Your task to perform on an android device: View the shopping cart on bestbuy.com. Add "apple airpods pro" to the cart on bestbuy.com, then select checkout. Image 0: 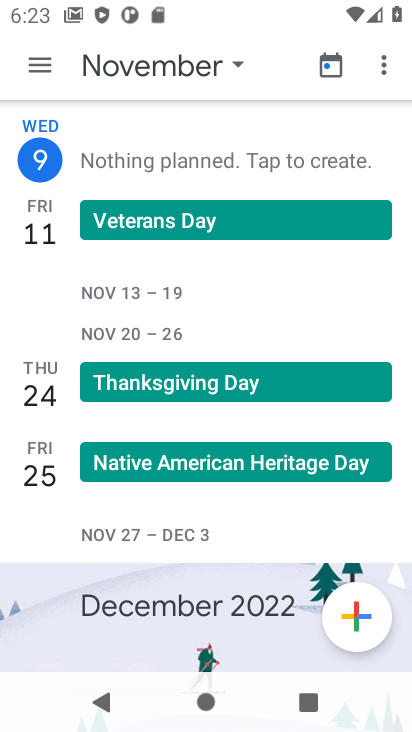
Step 0: press home button
Your task to perform on an android device: View the shopping cart on bestbuy.com. Add "apple airpods pro" to the cart on bestbuy.com, then select checkout. Image 1: 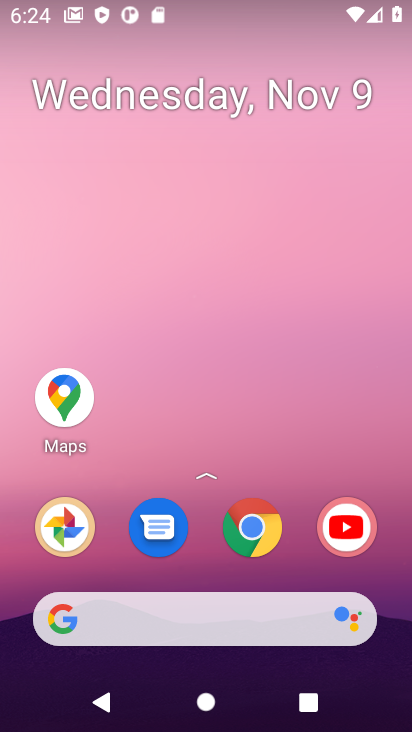
Step 1: click (267, 535)
Your task to perform on an android device: View the shopping cart on bestbuy.com. Add "apple airpods pro" to the cart on bestbuy.com, then select checkout. Image 2: 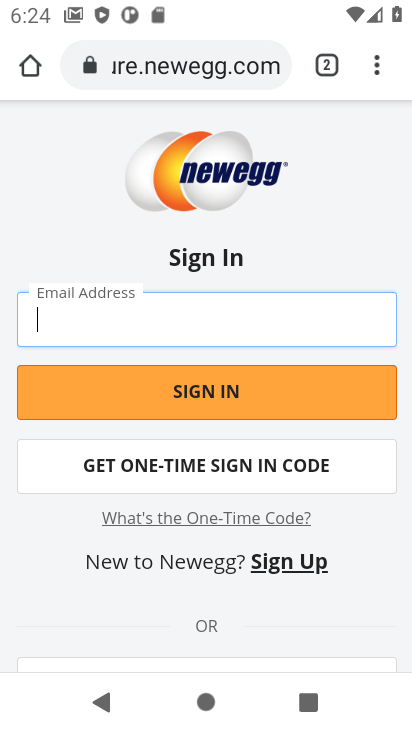
Step 2: click (240, 60)
Your task to perform on an android device: View the shopping cart on bestbuy.com. Add "apple airpods pro" to the cart on bestbuy.com, then select checkout. Image 3: 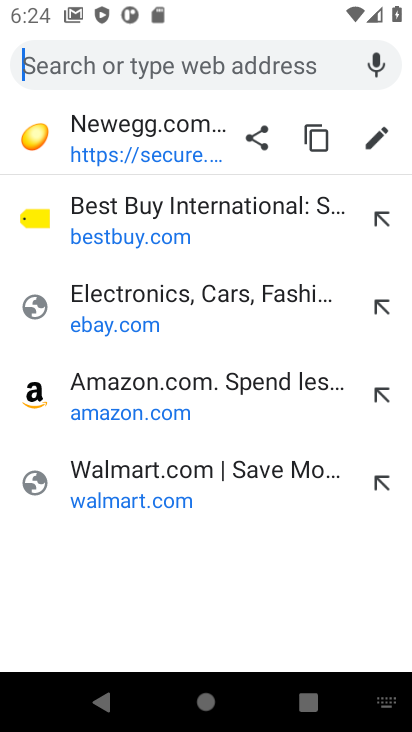
Step 3: click (154, 198)
Your task to perform on an android device: View the shopping cart on bestbuy.com. Add "apple airpods pro" to the cart on bestbuy.com, then select checkout. Image 4: 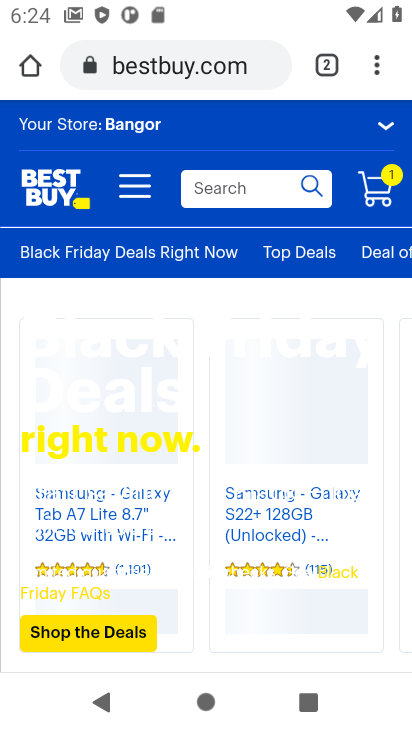
Step 4: click (371, 195)
Your task to perform on an android device: View the shopping cart on bestbuy.com. Add "apple airpods pro" to the cart on bestbuy.com, then select checkout. Image 5: 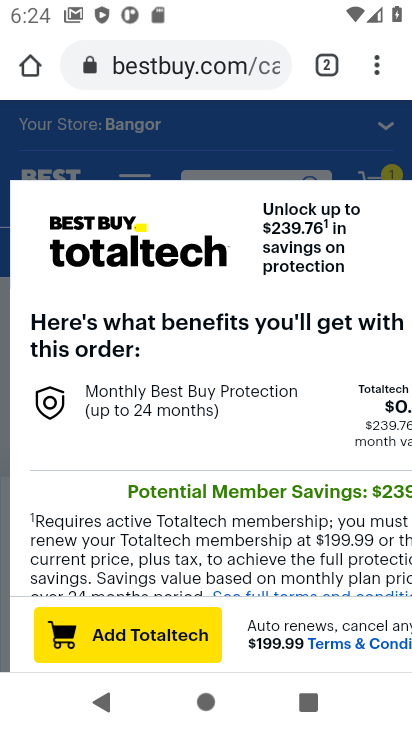
Step 5: drag from (225, 524) to (240, 166)
Your task to perform on an android device: View the shopping cart on bestbuy.com. Add "apple airpods pro" to the cart on bestbuy.com, then select checkout. Image 6: 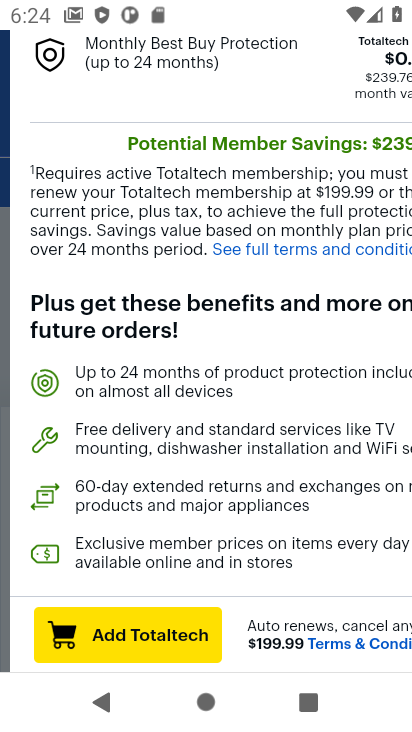
Step 6: drag from (238, 442) to (233, 149)
Your task to perform on an android device: View the shopping cart on bestbuy.com. Add "apple airpods pro" to the cart on bestbuy.com, then select checkout. Image 7: 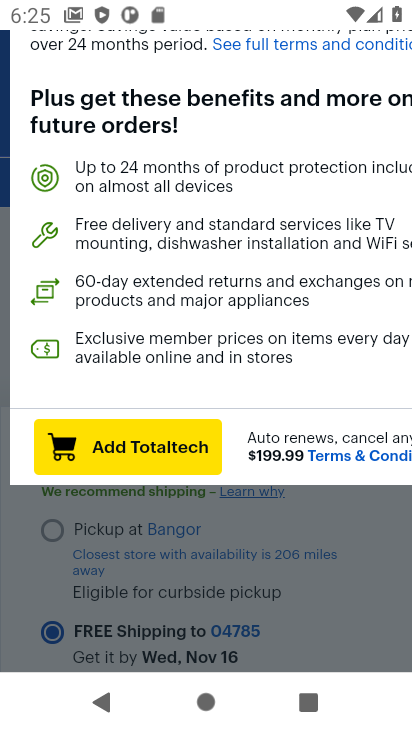
Step 7: click (385, 547)
Your task to perform on an android device: View the shopping cart on bestbuy.com. Add "apple airpods pro" to the cart on bestbuy.com, then select checkout. Image 8: 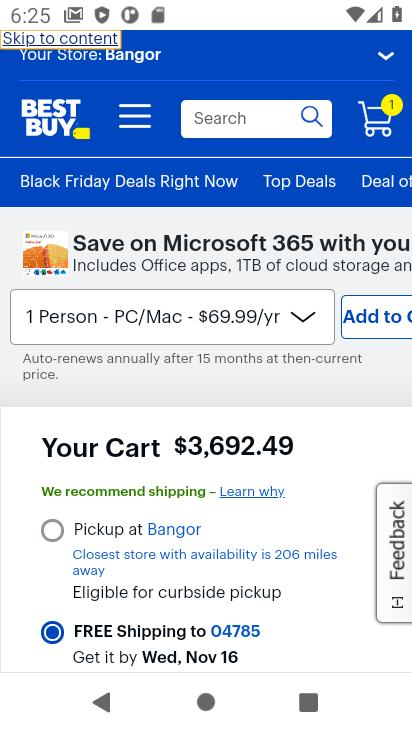
Step 8: click (218, 122)
Your task to perform on an android device: View the shopping cart on bestbuy.com. Add "apple airpods pro" to the cart on bestbuy.com, then select checkout. Image 9: 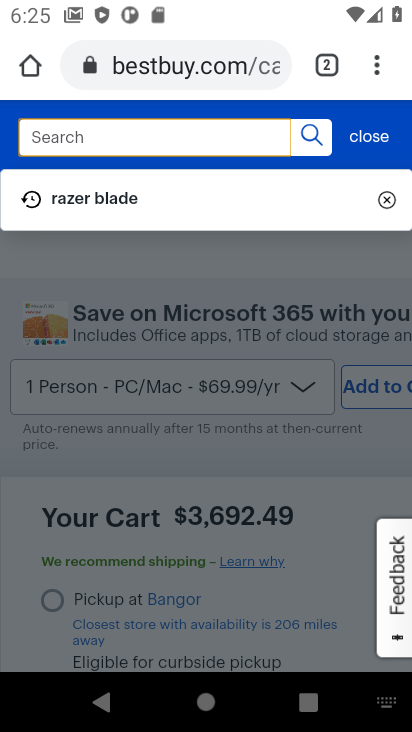
Step 9: type "apple airpods pro"
Your task to perform on an android device: View the shopping cart on bestbuy.com. Add "apple airpods pro" to the cart on bestbuy.com, then select checkout. Image 10: 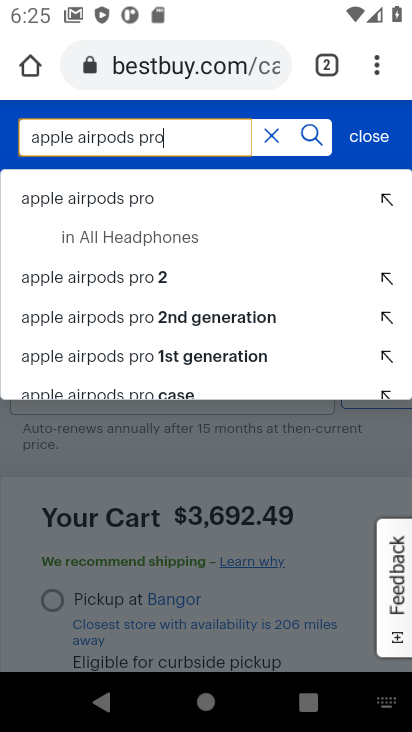
Step 10: click (126, 202)
Your task to perform on an android device: View the shopping cart on bestbuy.com. Add "apple airpods pro" to the cart on bestbuy.com, then select checkout. Image 11: 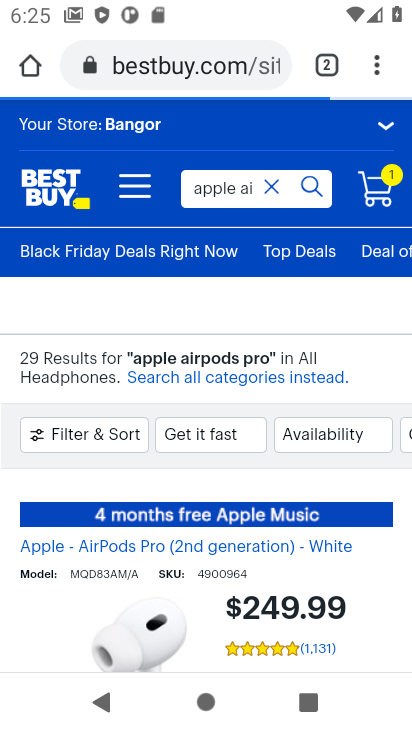
Step 11: drag from (185, 554) to (195, 317)
Your task to perform on an android device: View the shopping cart on bestbuy.com. Add "apple airpods pro" to the cart on bestbuy.com, then select checkout. Image 12: 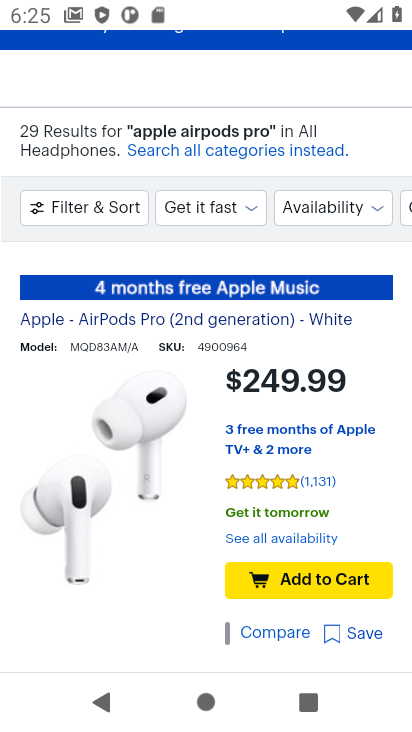
Step 12: click (299, 568)
Your task to perform on an android device: View the shopping cart on bestbuy.com. Add "apple airpods pro" to the cart on bestbuy.com, then select checkout. Image 13: 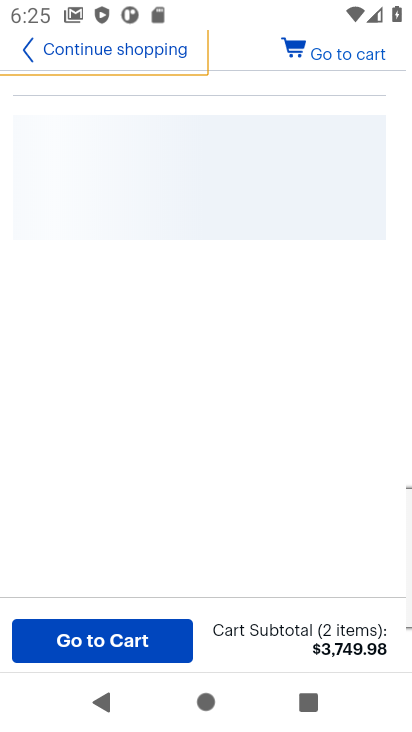
Step 13: click (352, 60)
Your task to perform on an android device: View the shopping cart on bestbuy.com. Add "apple airpods pro" to the cart on bestbuy.com, then select checkout. Image 14: 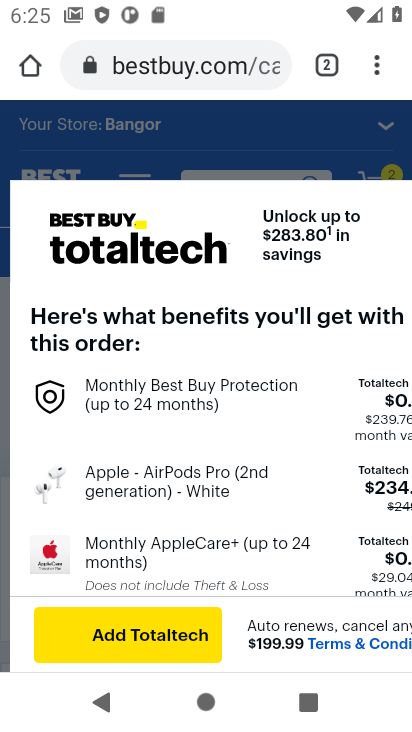
Step 14: click (195, 580)
Your task to perform on an android device: View the shopping cart on bestbuy.com. Add "apple airpods pro" to the cart on bestbuy.com, then select checkout. Image 15: 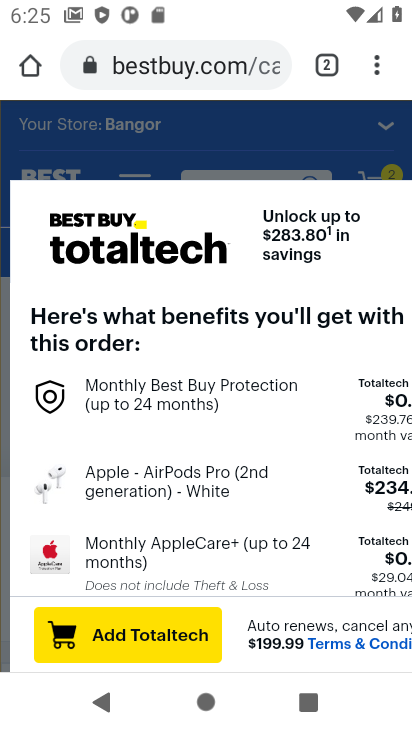
Step 15: click (381, 215)
Your task to perform on an android device: View the shopping cart on bestbuy.com. Add "apple airpods pro" to the cart on bestbuy.com, then select checkout. Image 16: 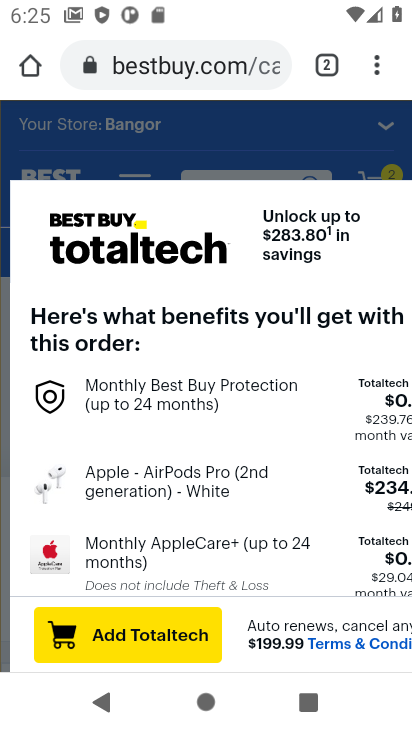
Step 16: click (303, 142)
Your task to perform on an android device: View the shopping cart on bestbuy.com. Add "apple airpods pro" to the cart on bestbuy.com, then select checkout. Image 17: 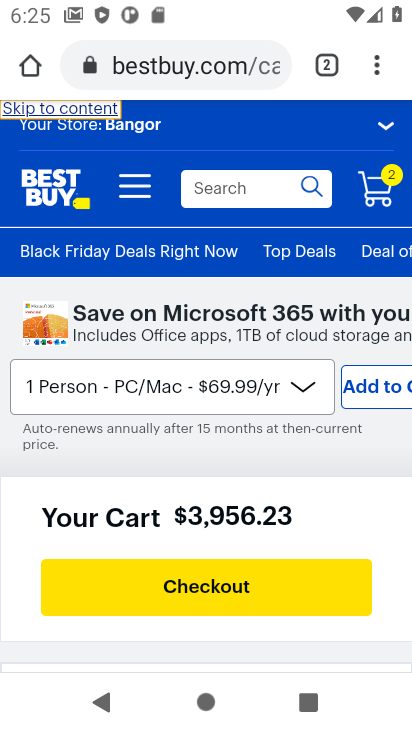
Step 17: click (209, 580)
Your task to perform on an android device: View the shopping cart on bestbuy.com. Add "apple airpods pro" to the cart on bestbuy.com, then select checkout. Image 18: 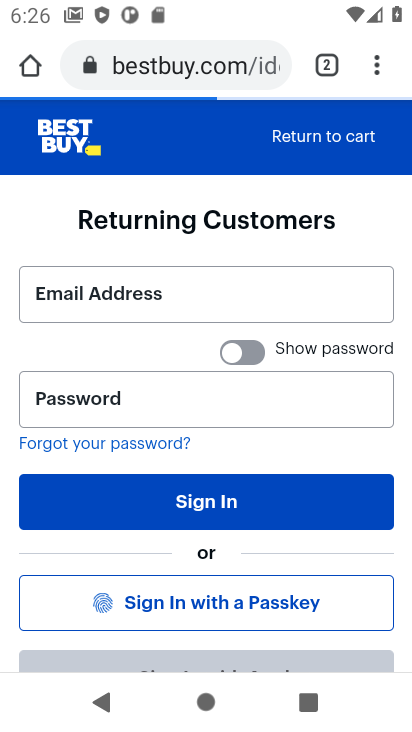
Step 18: task complete